Your task to perform on an android device: Open Chrome and go to the settings page Image 0: 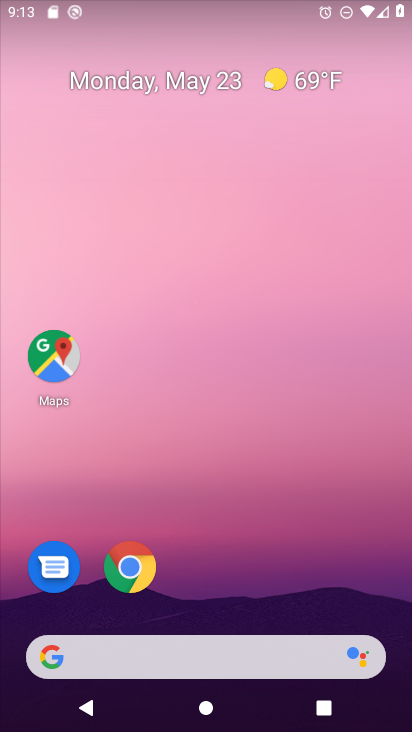
Step 0: click (133, 556)
Your task to perform on an android device: Open Chrome and go to the settings page Image 1: 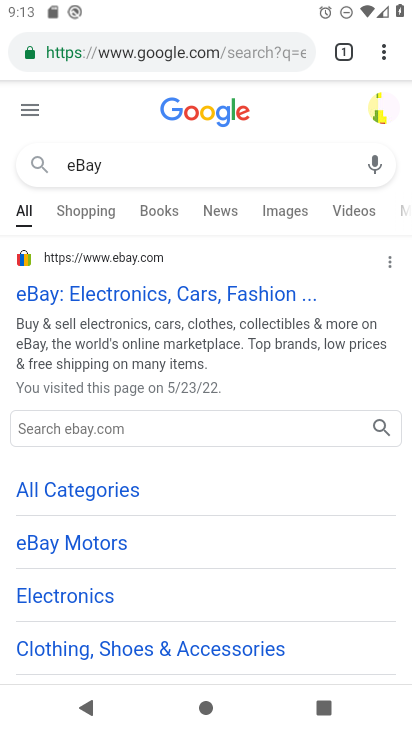
Step 1: click (391, 59)
Your task to perform on an android device: Open Chrome and go to the settings page Image 2: 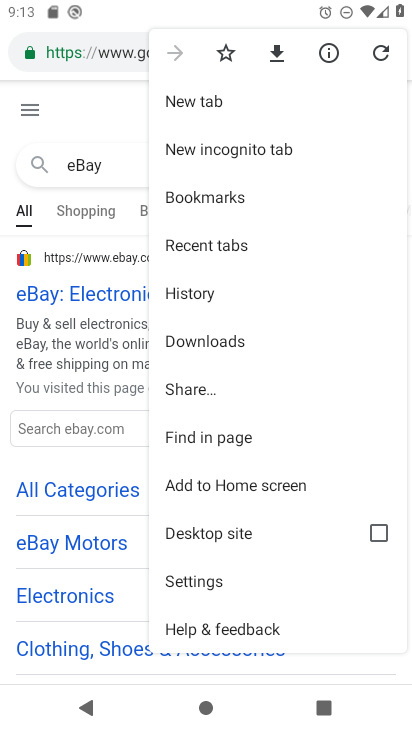
Step 2: click (206, 578)
Your task to perform on an android device: Open Chrome and go to the settings page Image 3: 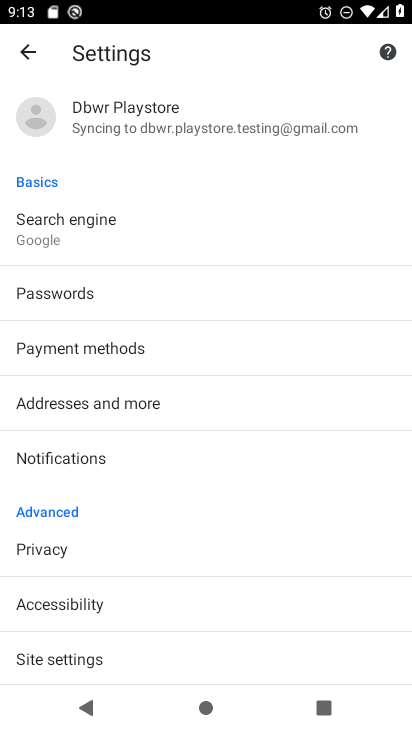
Step 3: task complete